Your task to perform on an android device: Open eBay Image 0: 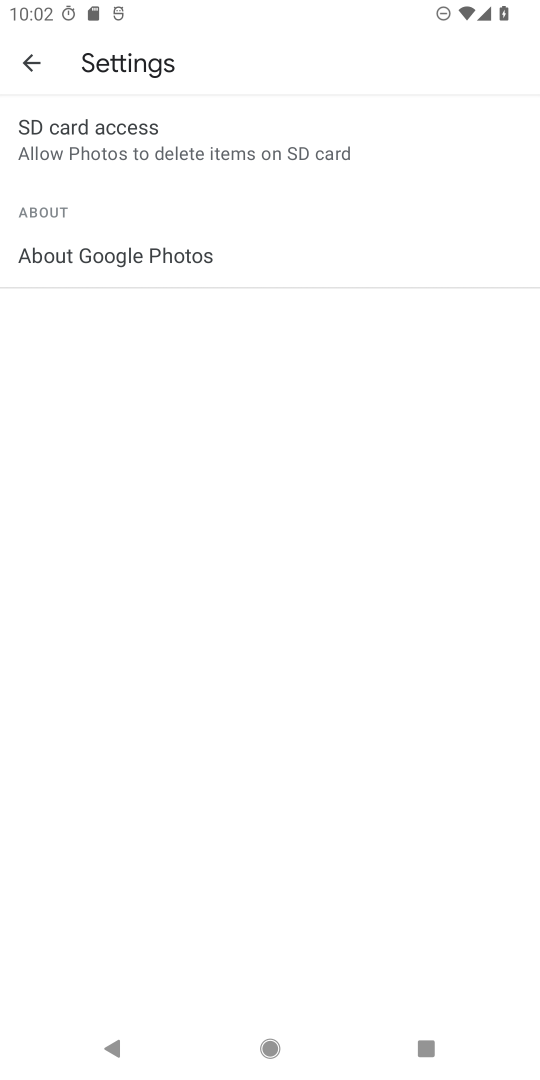
Step 0: press home button
Your task to perform on an android device: Open eBay Image 1: 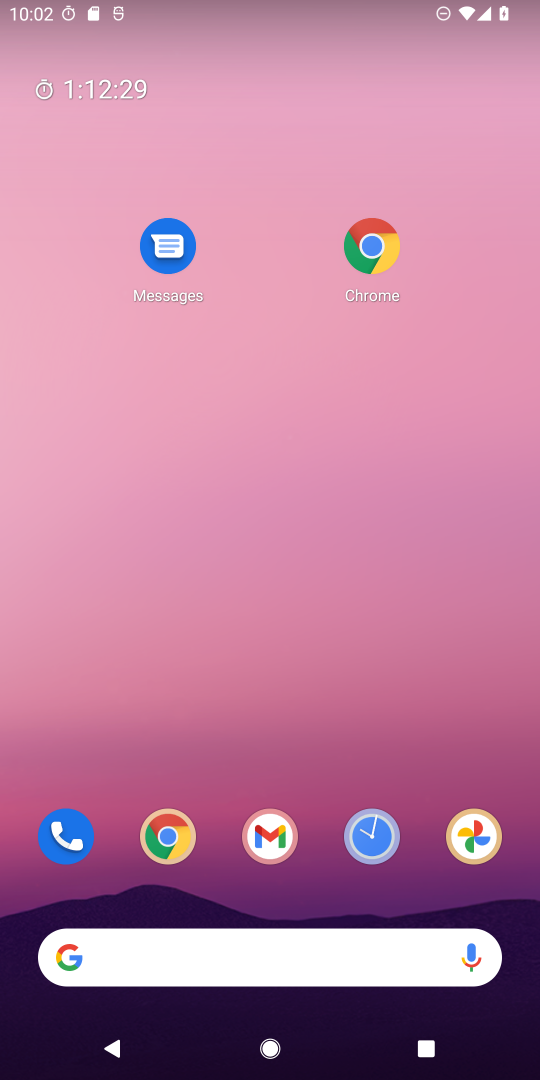
Step 1: drag from (275, 913) to (327, 228)
Your task to perform on an android device: Open eBay Image 2: 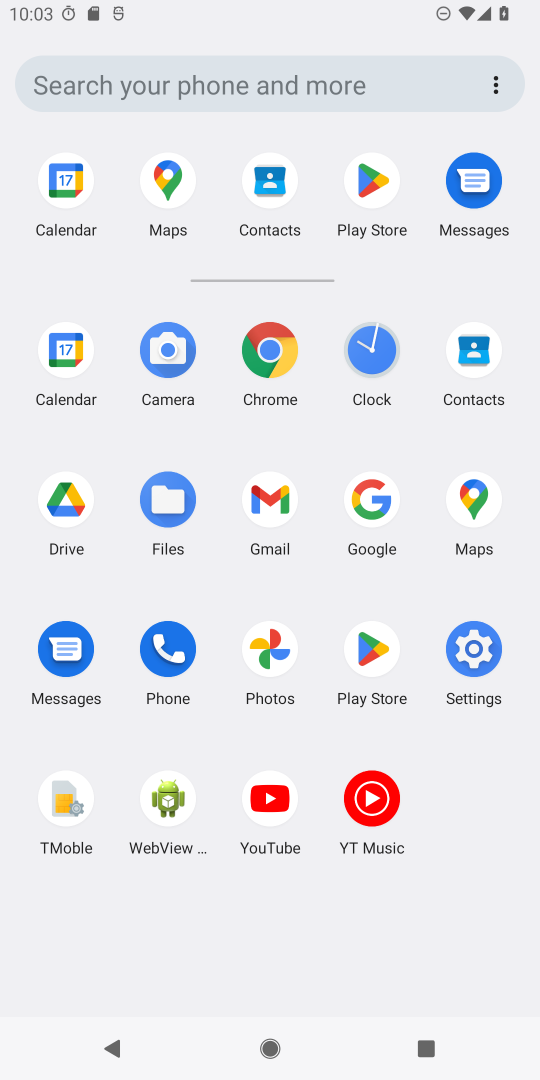
Step 2: click (271, 340)
Your task to perform on an android device: Open eBay Image 3: 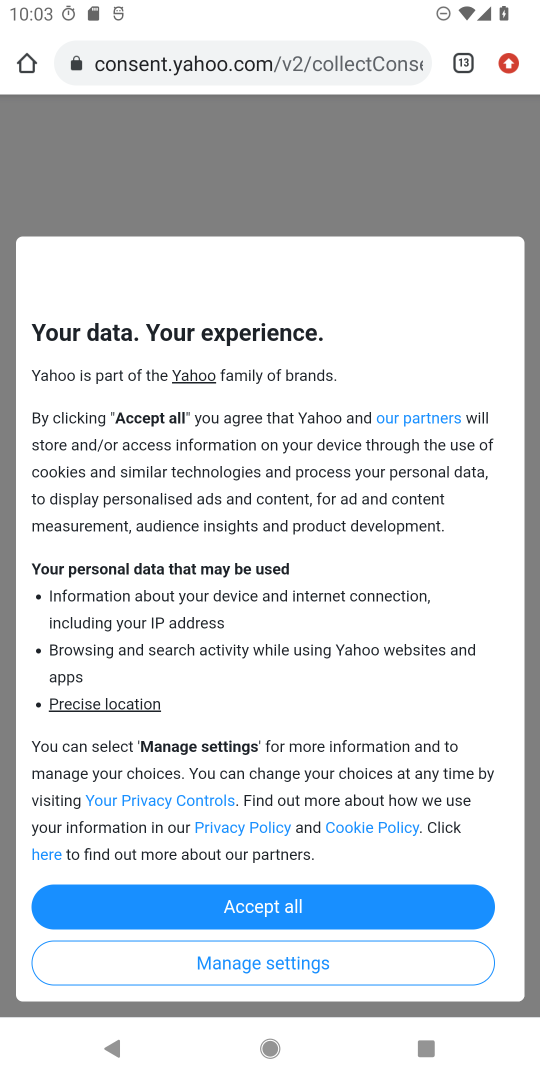
Step 3: click (518, 53)
Your task to perform on an android device: Open eBay Image 4: 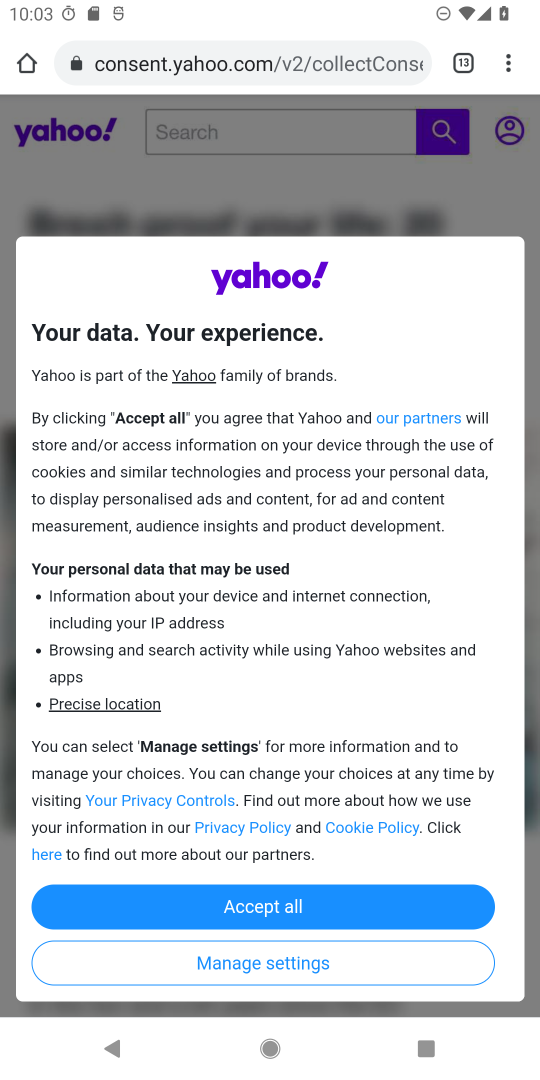
Step 4: click (502, 64)
Your task to perform on an android device: Open eBay Image 5: 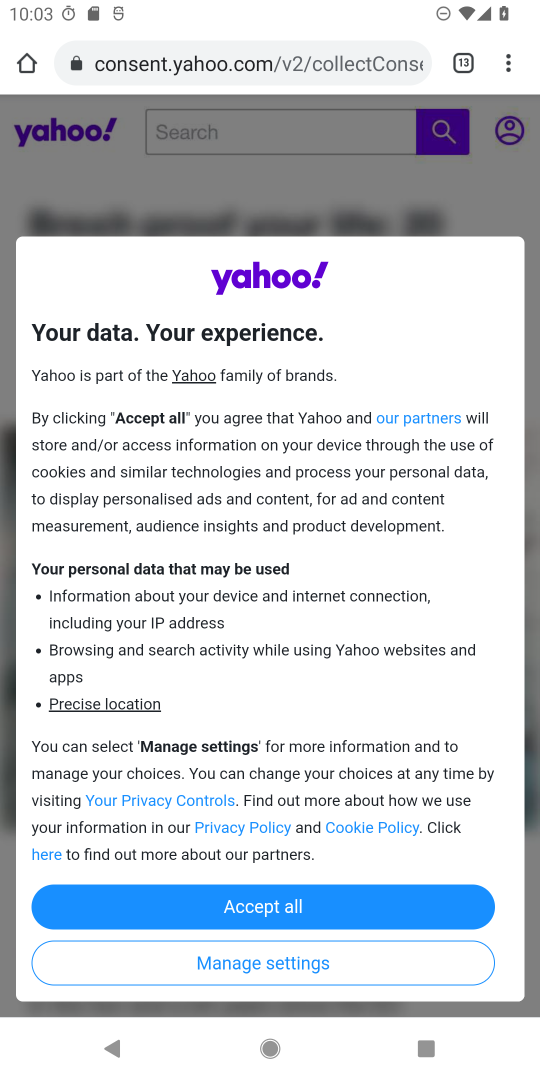
Step 5: click (479, 56)
Your task to perform on an android device: Open eBay Image 6: 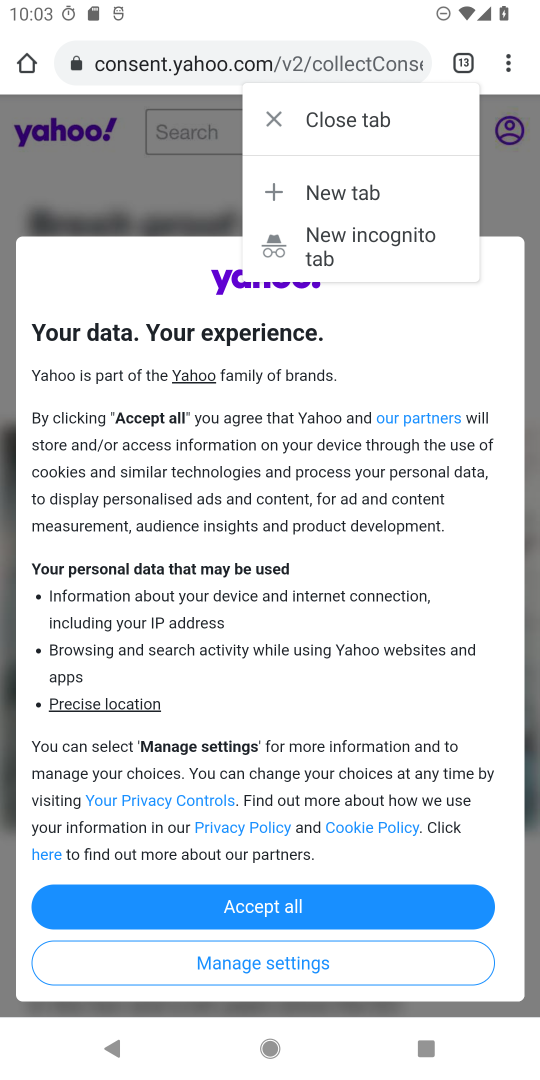
Step 6: click (322, 184)
Your task to perform on an android device: Open eBay Image 7: 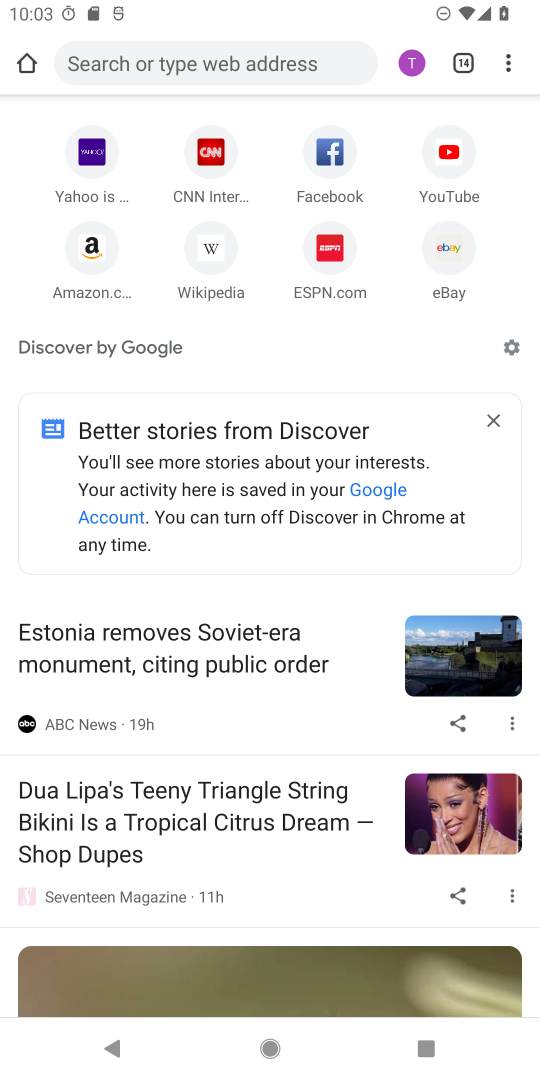
Step 7: click (438, 254)
Your task to perform on an android device: Open eBay Image 8: 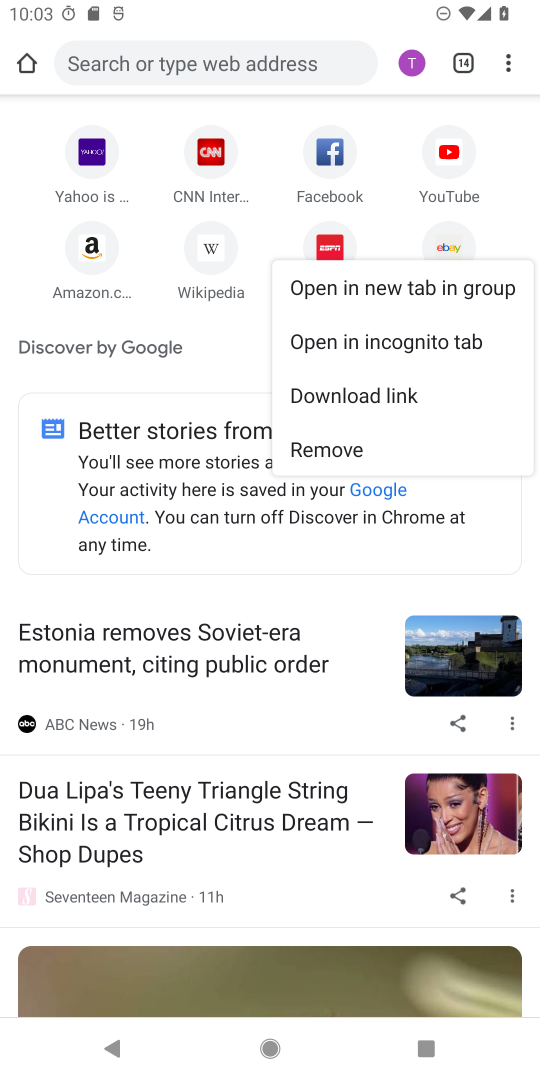
Step 8: click (442, 291)
Your task to perform on an android device: Open eBay Image 9: 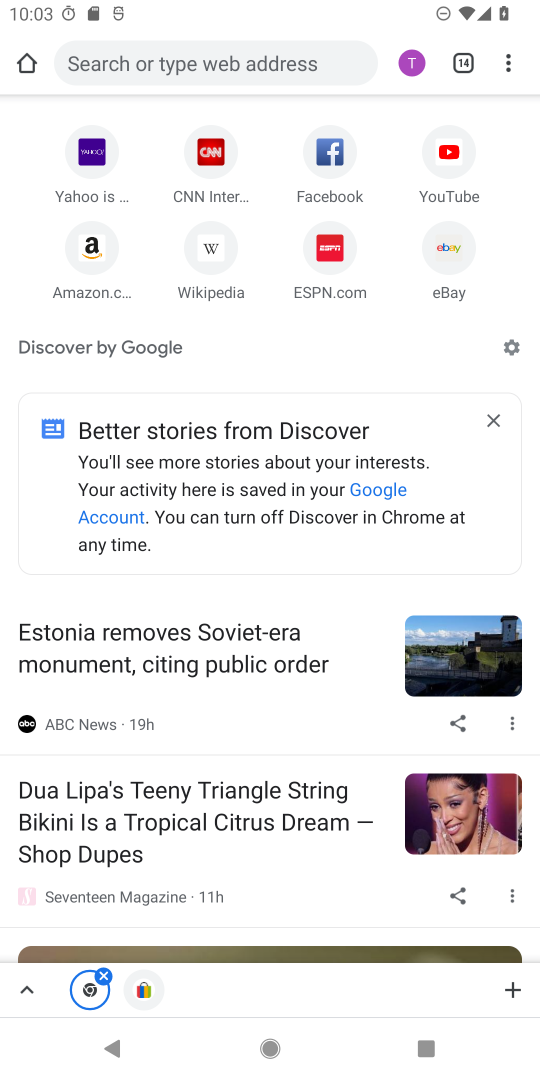
Step 9: click (441, 250)
Your task to perform on an android device: Open eBay Image 10: 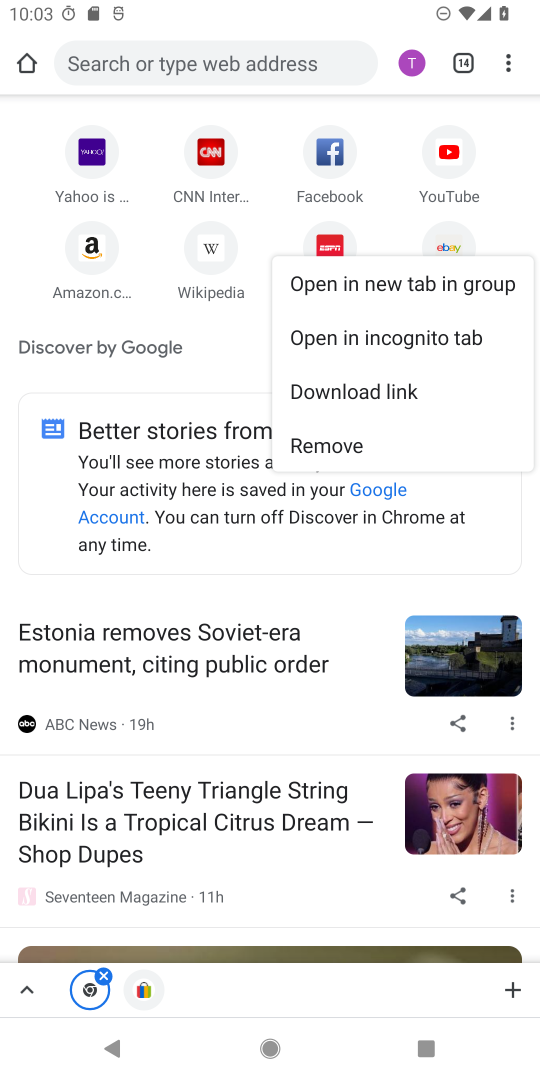
Step 10: click (441, 250)
Your task to perform on an android device: Open eBay Image 11: 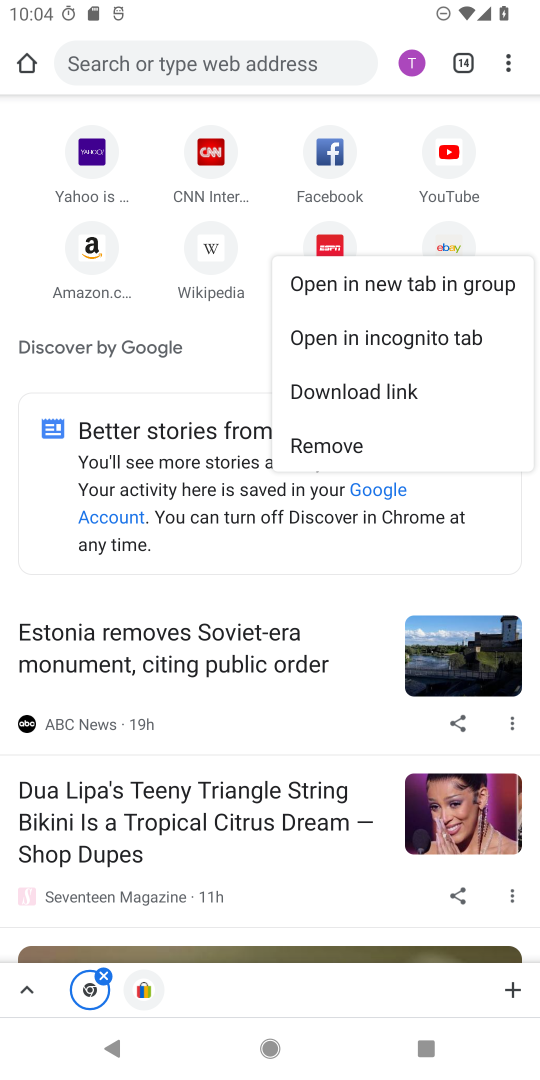
Step 11: click (468, 230)
Your task to perform on an android device: Open eBay Image 12: 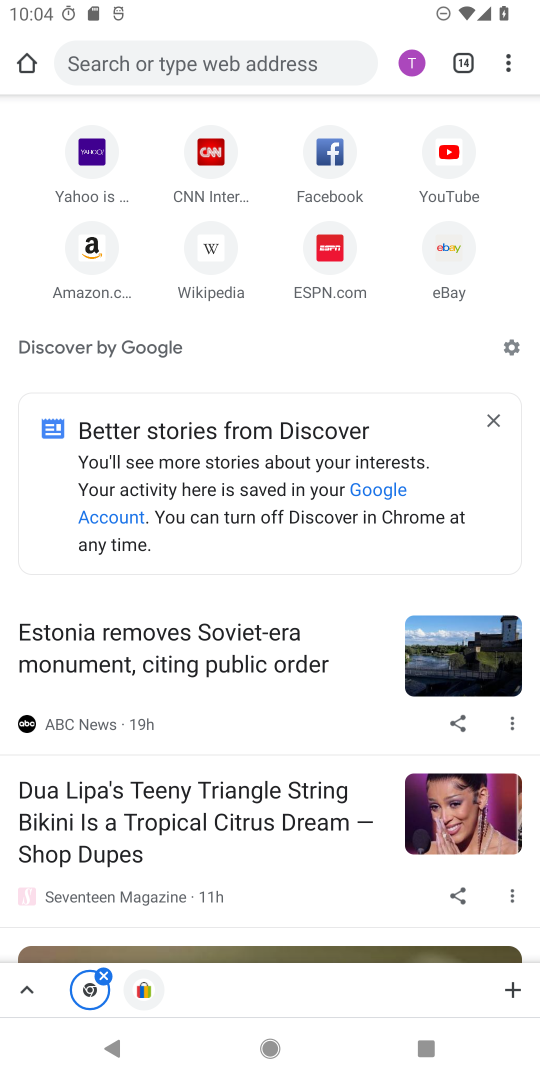
Step 12: click (453, 239)
Your task to perform on an android device: Open eBay Image 13: 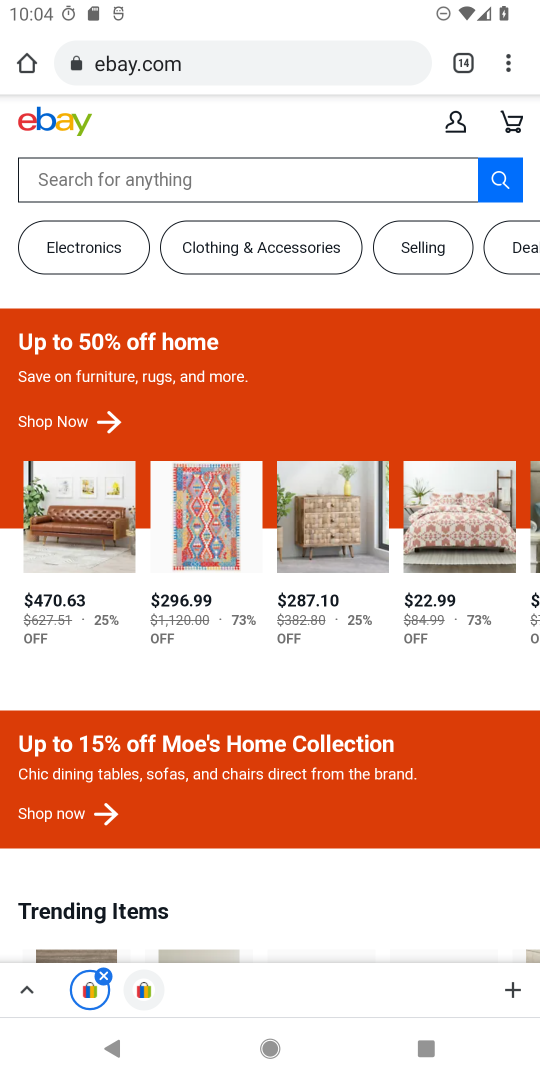
Step 13: task complete